Your task to perform on an android device: Open Google Maps Image 0: 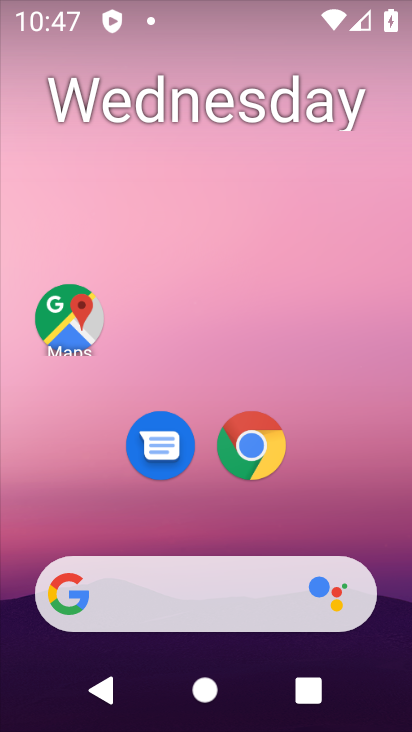
Step 0: click (70, 311)
Your task to perform on an android device: Open Google Maps Image 1: 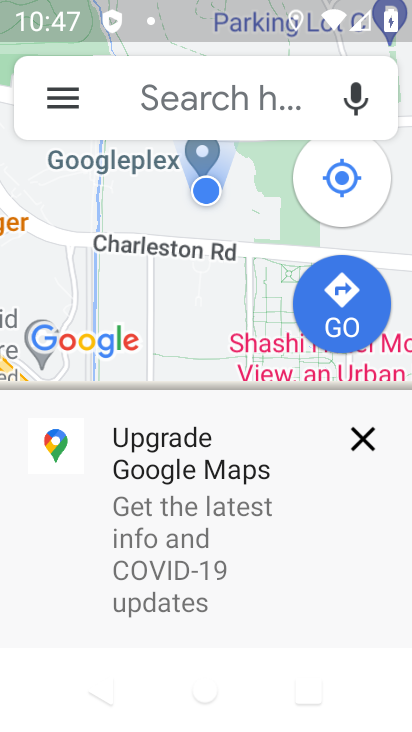
Step 1: click (370, 444)
Your task to perform on an android device: Open Google Maps Image 2: 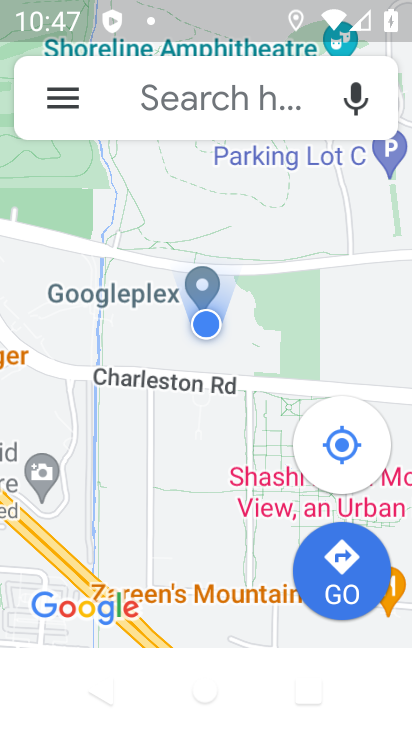
Step 2: task complete